Your task to perform on an android device: turn off location Image 0: 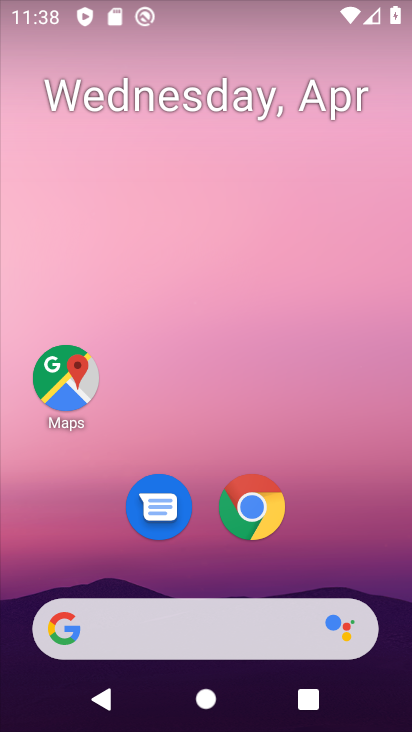
Step 0: drag from (386, 567) to (275, 53)
Your task to perform on an android device: turn off location Image 1: 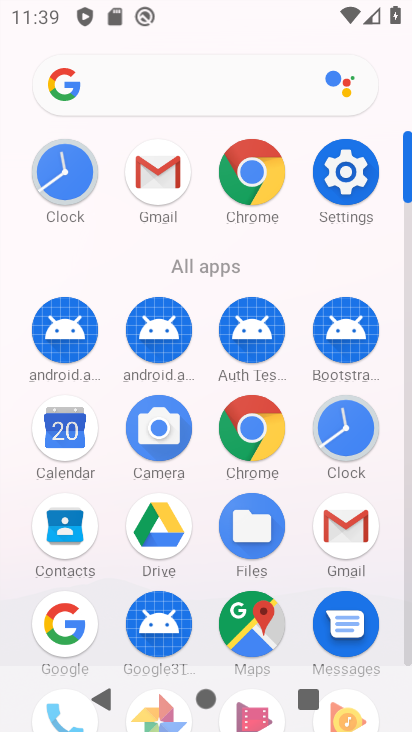
Step 1: click (331, 182)
Your task to perform on an android device: turn off location Image 2: 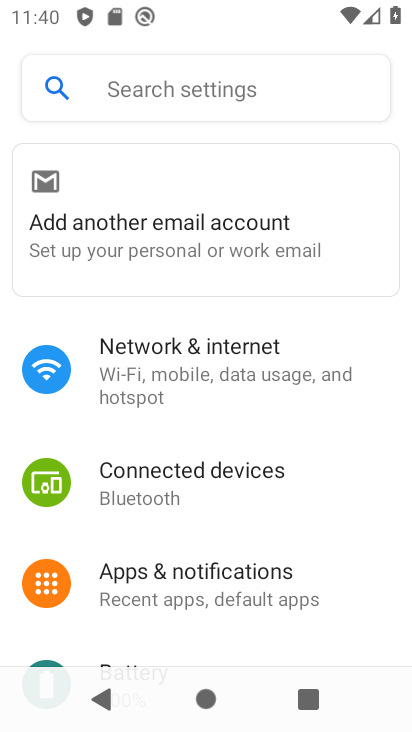
Step 2: drag from (166, 622) to (215, 137)
Your task to perform on an android device: turn off location Image 3: 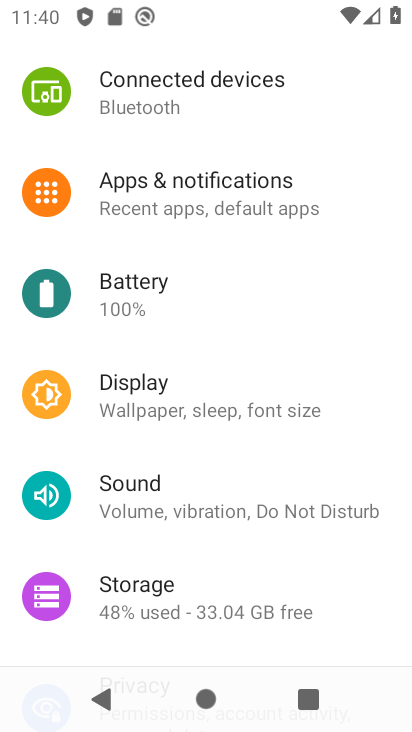
Step 3: drag from (215, 602) to (283, 140)
Your task to perform on an android device: turn off location Image 4: 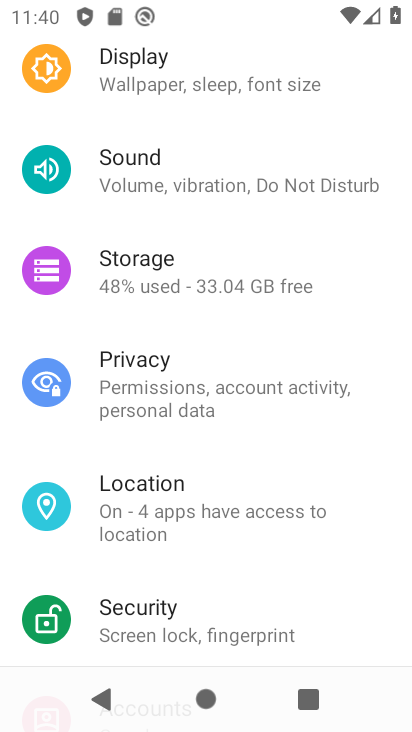
Step 4: click (212, 529)
Your task to perform on an android device: turn off location Image 5: 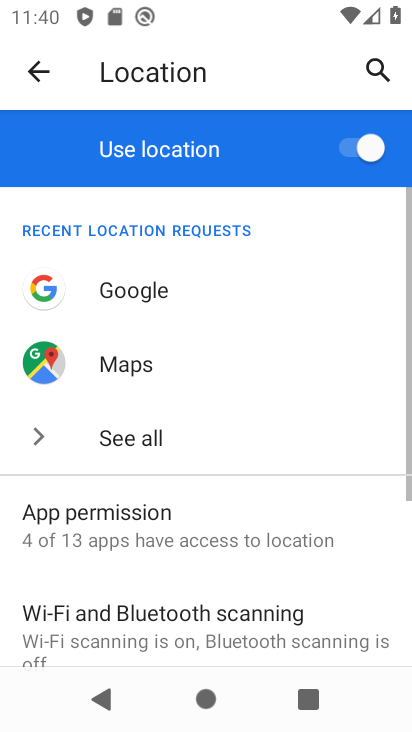
Step 5: click (312, 147)
Your task to perform on an android device: turn off location Image 6: 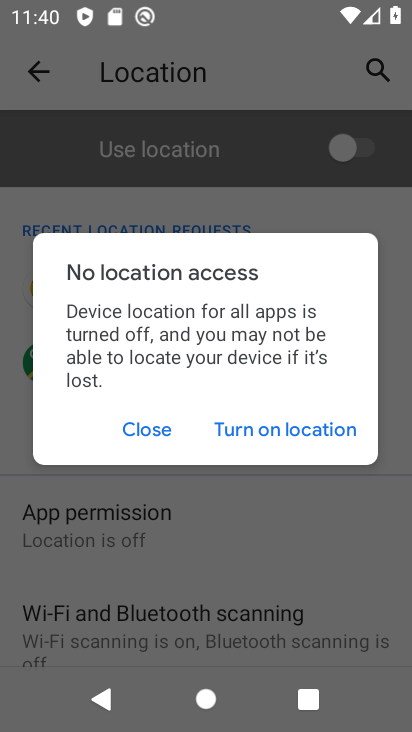
Step 6: click (145, 435)
Your task to perform on an android device: turn off location Image 7: 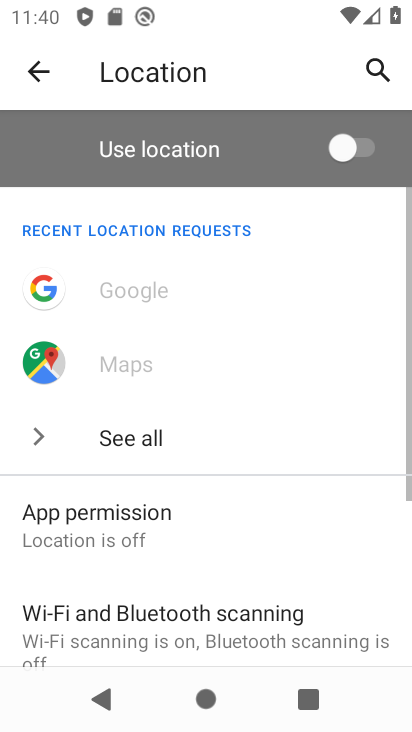
Step 7: task complete